Your task to perform on an android device: Where can I buy a nice beach tote? Image 0: 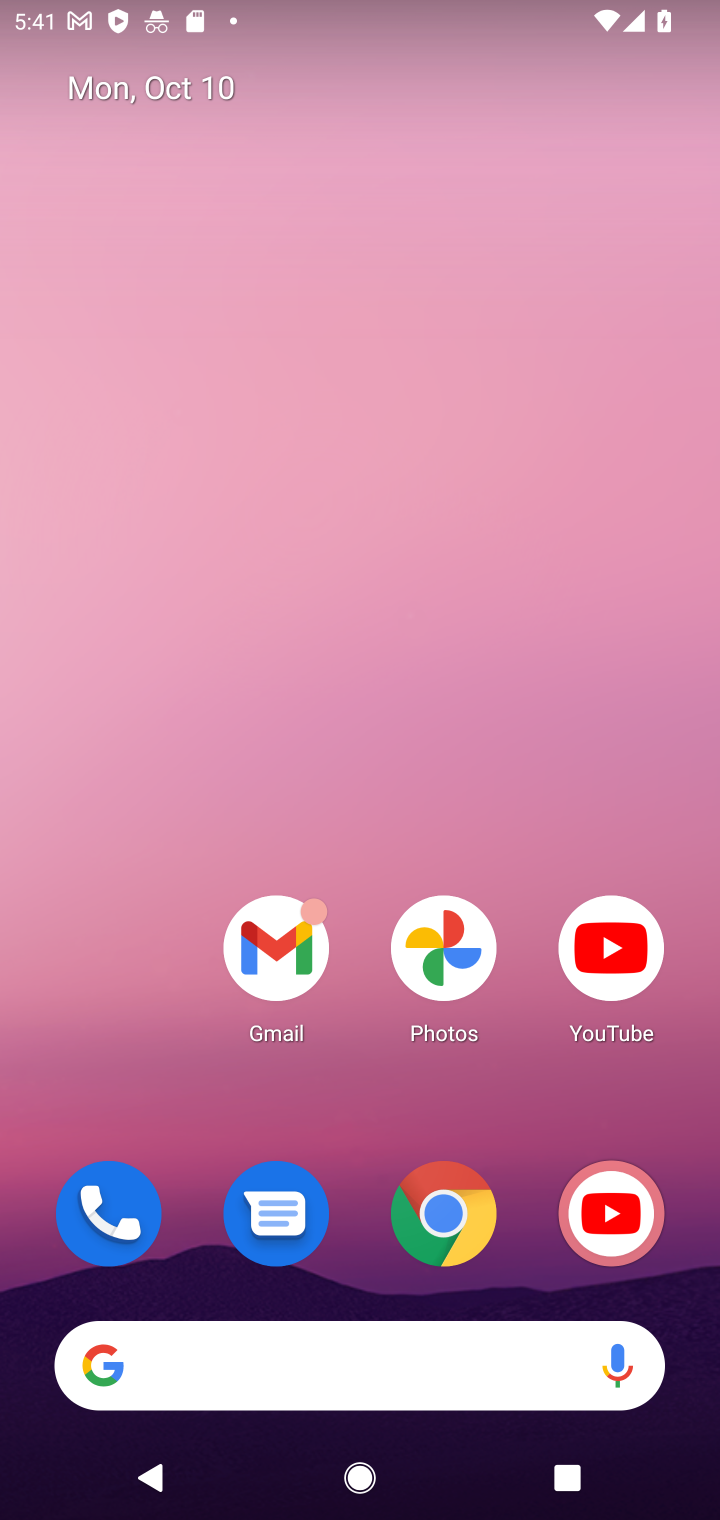
Step 0: click (248, 1391)
Your task to perform on an android device: Where can I buy a nice beach tote? Image 1: 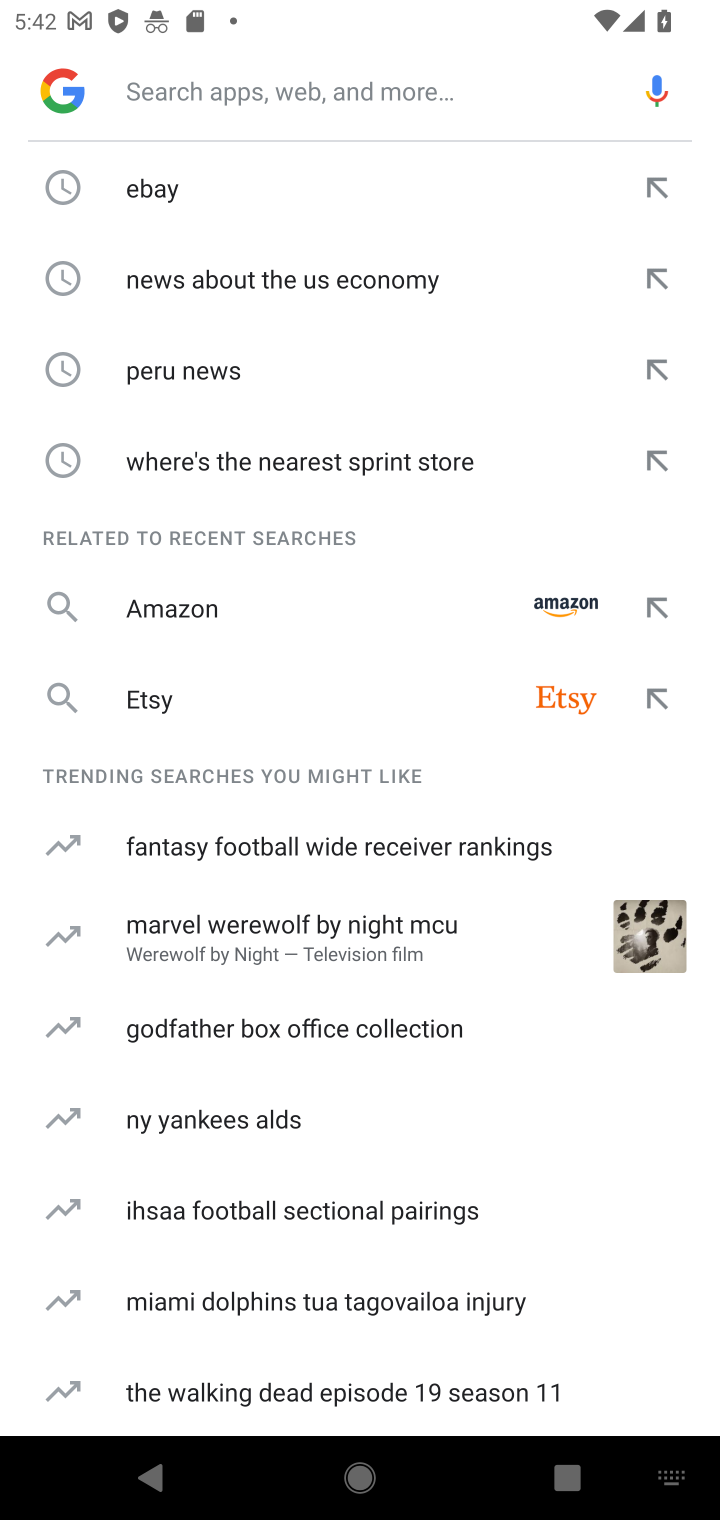
Step 1: click (193, 100)
Your task to perform on an android device: Where can I buy a nice beach tote? Image 2: 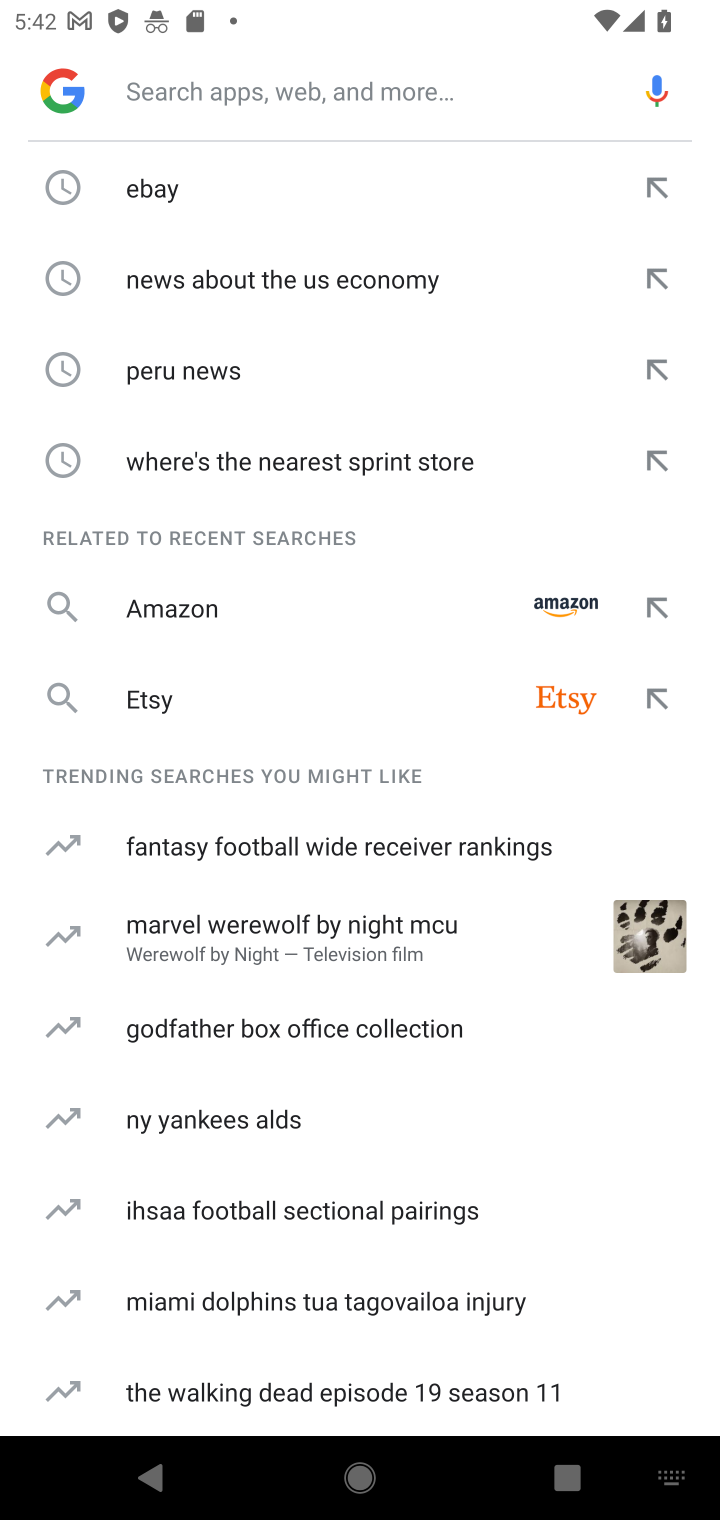
Step 2: type "Where can I buy a nice beach tote"
Your task to perform on an android device: Where can I buy a nice beach tote? Image 3: 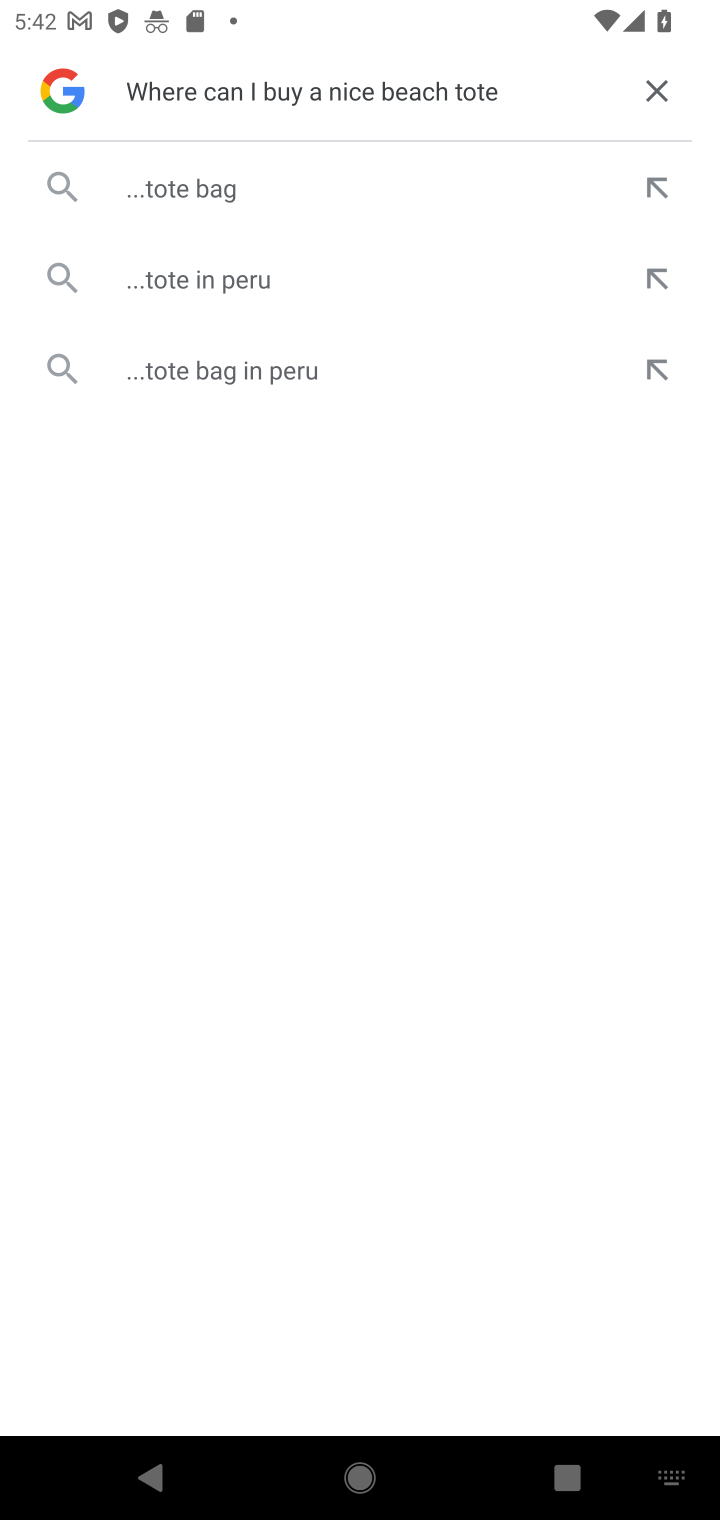
Step 3: click (197, 186)
Your task to perform on an android device: Where can I buy a nice beach tote? Image 4: 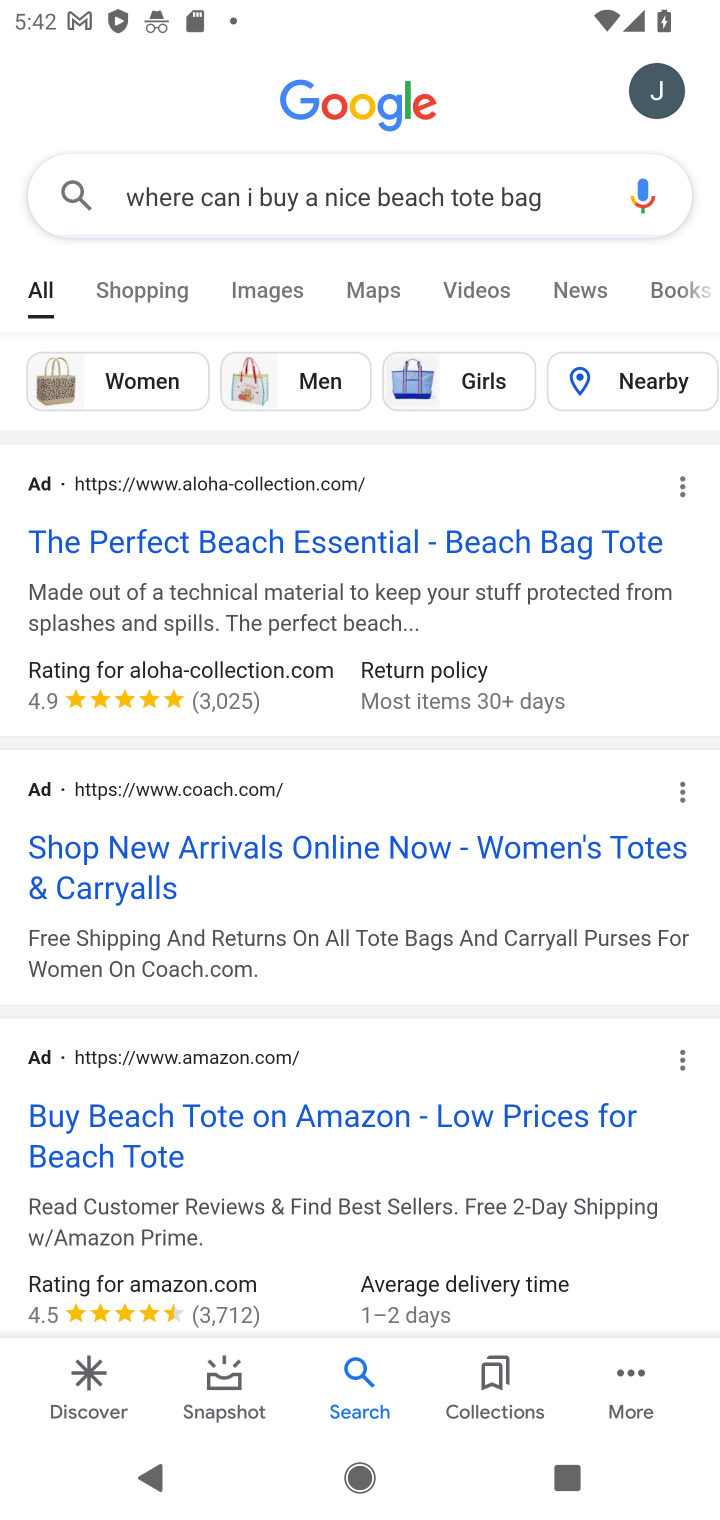
Step 4: task complete